Your task to perform on an android device: Show me popular games on the Play Store Image 0: 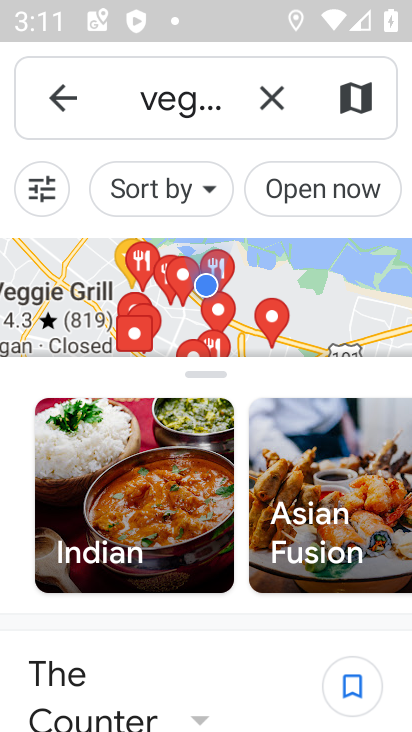
Step 0: press back button
Your task to perform on an android device: Show me popular games on the Play Store Image 1: 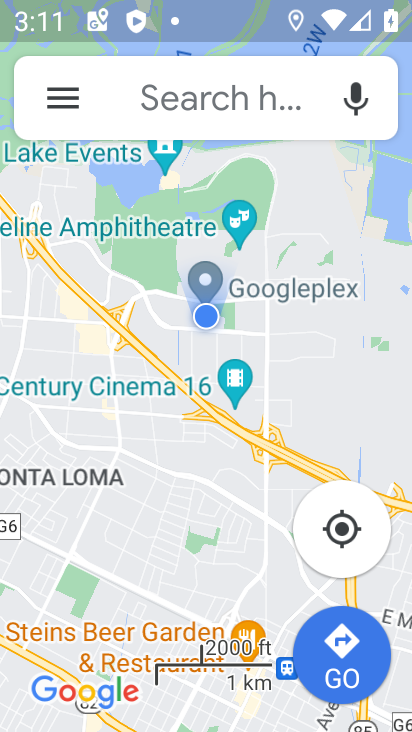
Step 1: press back button
Your task to perform on an android device: Show me popular games on the Play Store Image 2: 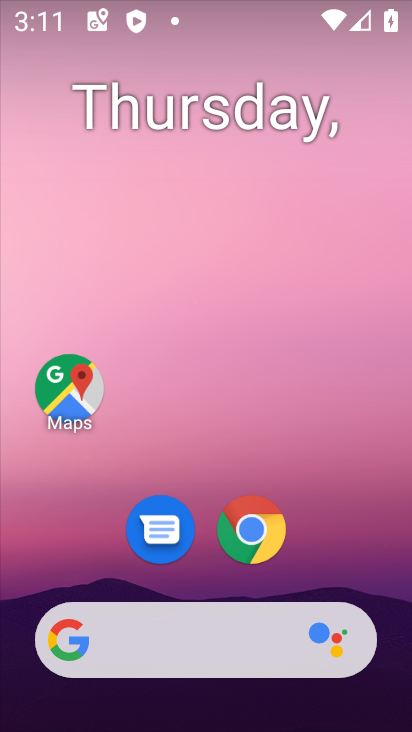
Step 2: drag from (340, 505) to (246, 25)
Your task to perform on an android device: Show me popular games on the Play Store Image 3: 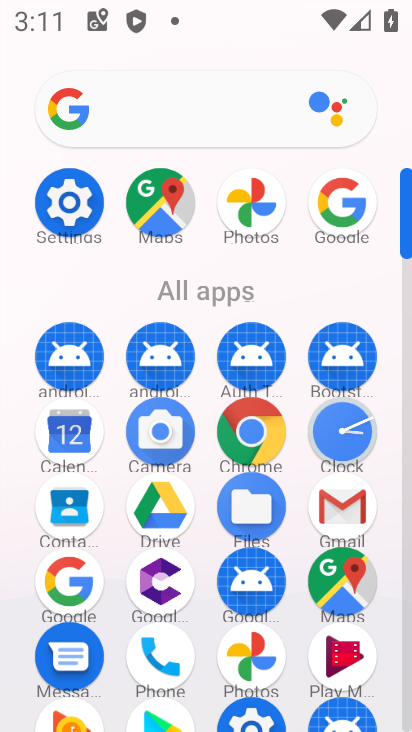
Step 3: drag from (214, 540) to (218, 183)
Your task to perform on an android device: Show me popular games on the Play Store Image 4: 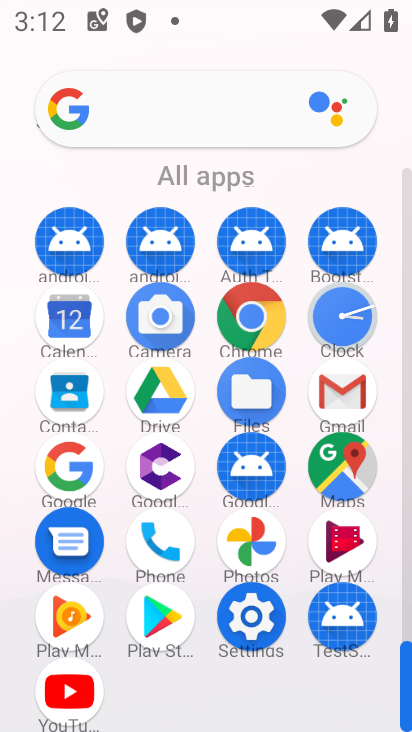
Step 4: click (165, 620)
Your task to perform on an android device: Show me popular games on the Play Store Image 5: 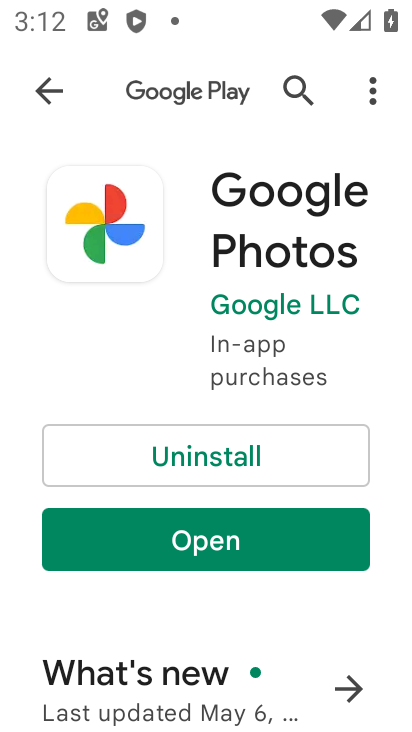
Step 5: click (92, 244)
Your task to perform on an android device: Show me popular games on the Play Store Image 6: 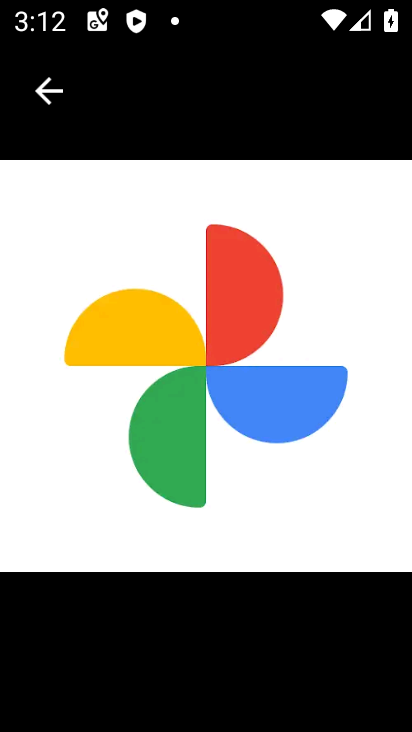
Step 6: press back button
Your task to perform on an android device: Show me popular games on the Play Store Image 7: 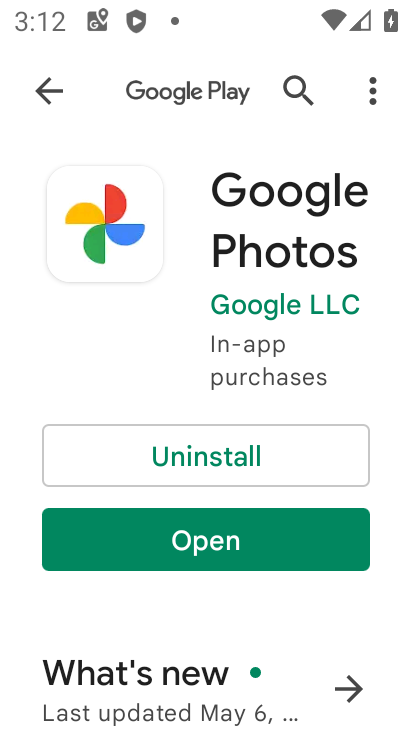
Step 7: press back button
Your task to perform on an android device: Show me popular games on the Play Store Image 8: 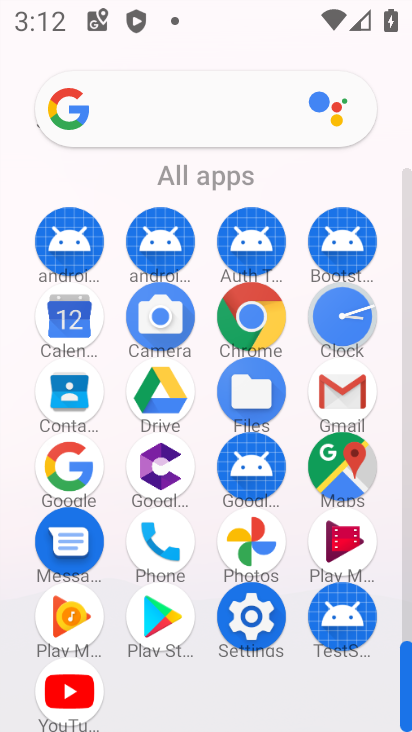
Step 8: click (163, 619)
Your task to perform on an android device: Show me popular games on the Play Store Image 9: 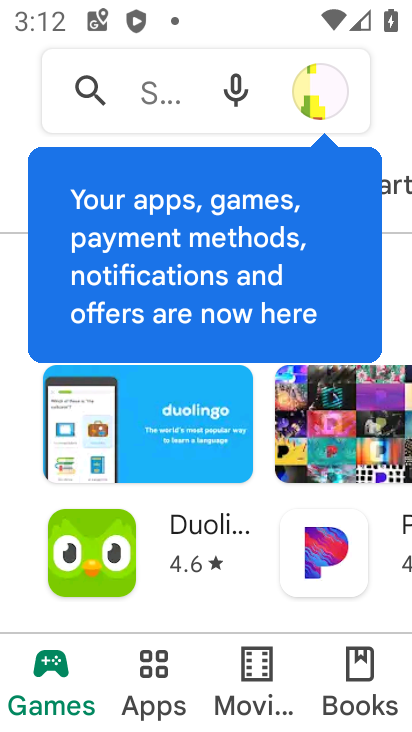
Step 9: click (176, 92)
Your task to perform on an android device: Show me popular games on the Play Store Image 10: 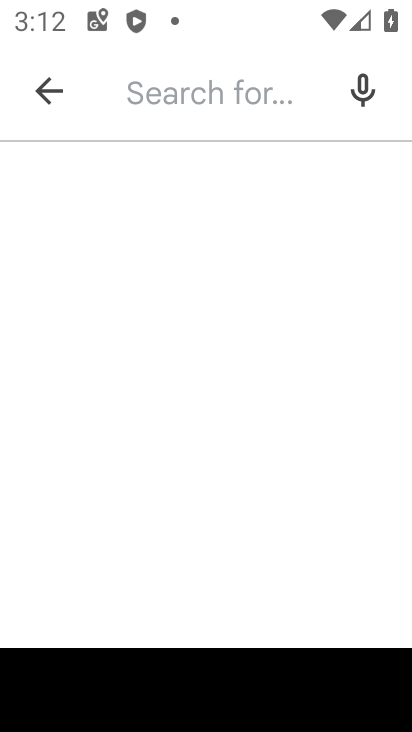
Step 10: type "popular games"
Your task to perform on an android device: Show me popular games on the Play Store Image 11: 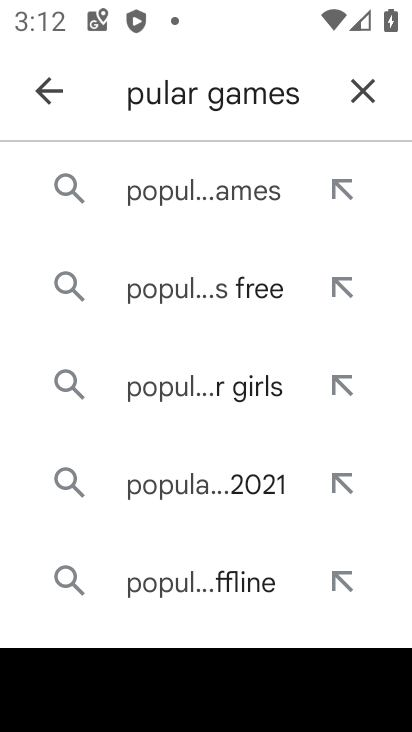
Step 11: click (185, 196)
Your task to perform on an android device: Show me popular games on the Play Store Image 12: 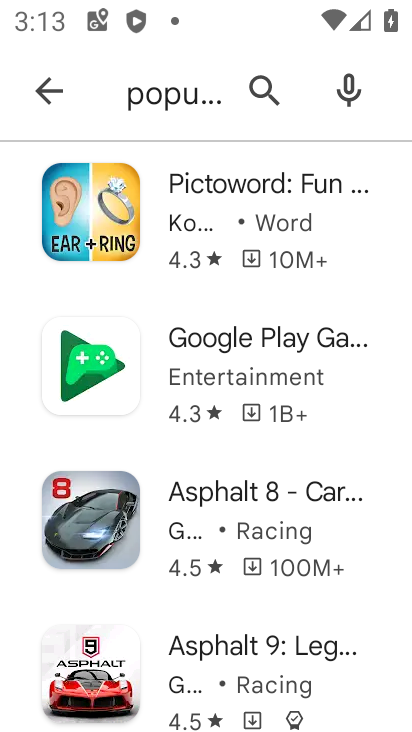
Step 12: task complete